Your task to perform on an android device: open app "Google News" (install if not already installed) Image 0: 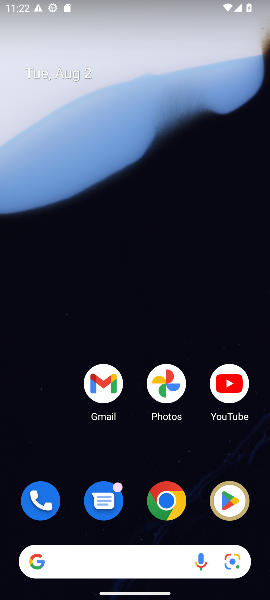
Step 0: drag from (97, 453) to (87, 146)
Your task to perform on an android device: open app "Google News" (install if not already installed) Image 1: 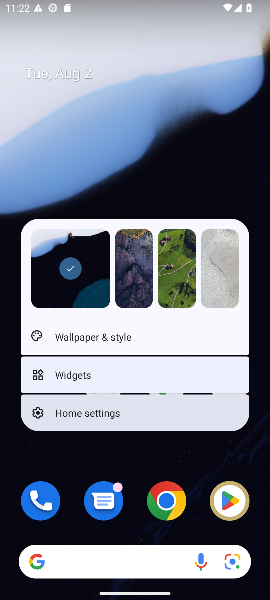
Step 1: click (200, 182)
Your task to perform on an android device: open app "Google News" (install if not already installed) Image 2: 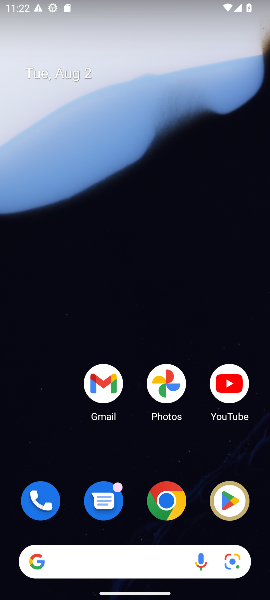
Step 2: drag from (193, 337) to (162, 83)
Your task to perform on an android device: open app "Google News" (install if not already installed) Image 3: 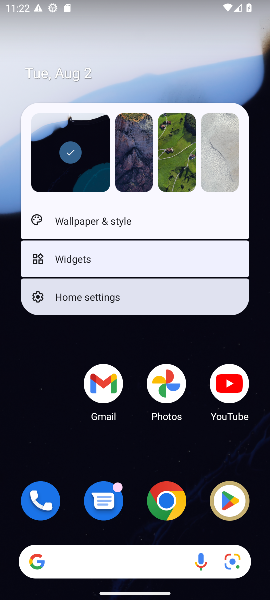
Step 3: click (151, 84)
Your task to perform on an android device: open app "Google News" (install if not already installed) Image 4: 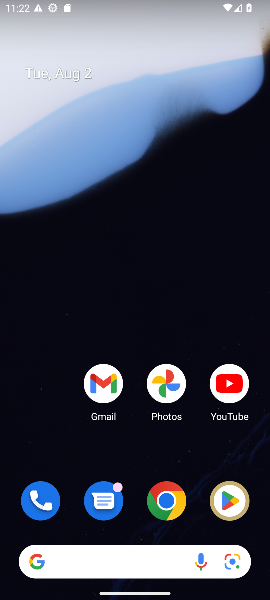
Step 4: drag from (199, 470) to (155, 83)
Your task to perform on an android device: open app "Google News" (install if not already installed) Image 5: 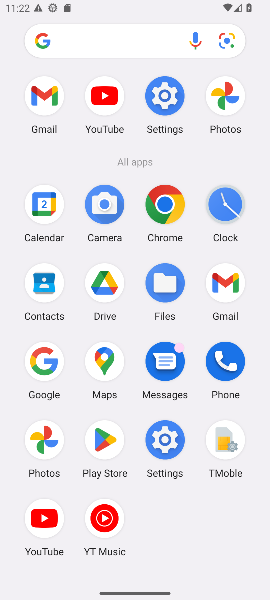
Step 5: click (103, 444)
Your task to perform on an android device: open app "Google News" (install if not already installed) Image 6: 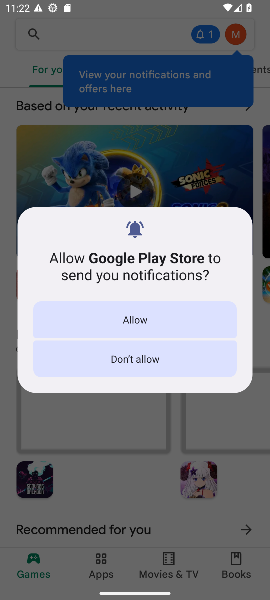
Step 6: click (180, 315)
Your task to perform on an android device: open app "Google News" (install if not already installed) Image 7: 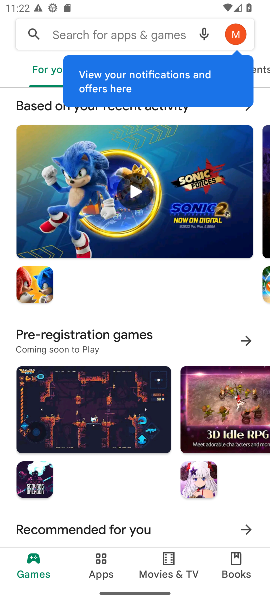
Step 7: click (157, 34)
Your task to perform on an android device: open app "Google News" (install if not already installed) Image 8: 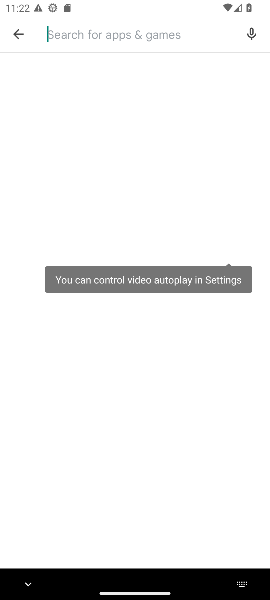
Step 8: click (145, 27)
Your task to perform on an android device: open app "Google News" (install if not already installed) Image 9: 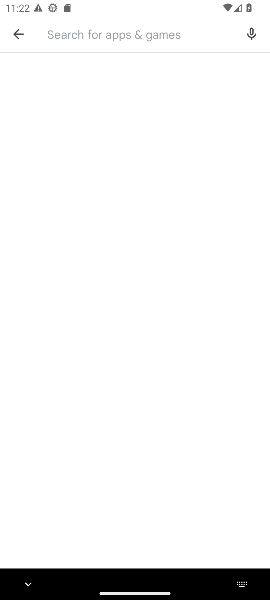
Step 9: type "google news"
Your task to perform on an android device: open app "Google News" (install if not already installed) Image 10: 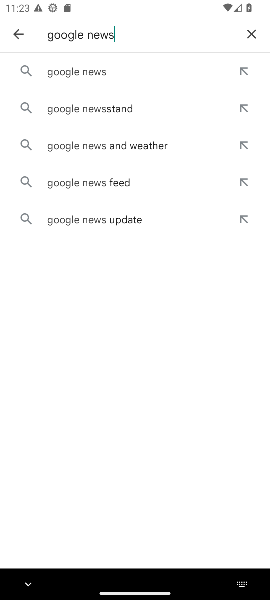
Step 10: click (114, 68)
Your task to perform on an android device: open app "Google News" (install if not already installed) Image 11: 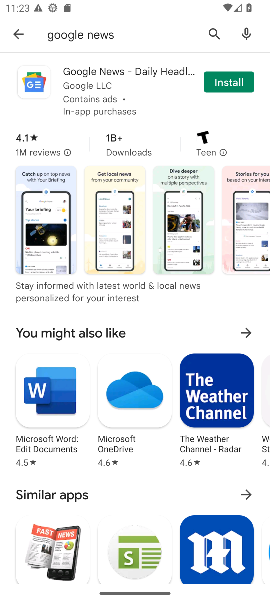
Step 11: click (234, 81)
Your task to perform on an android device: open app "Google News" (install if not already installed) Image 12: 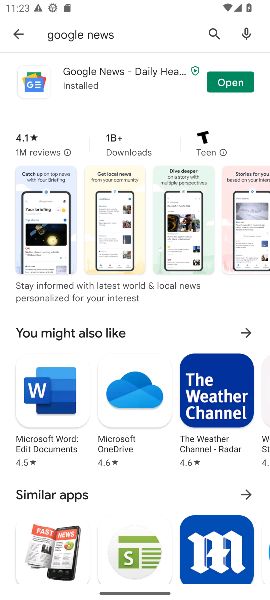
Step 12: click (239, 86)
Your task to perform on an android device: open app "Google News" (install if not already installed) Image 13: 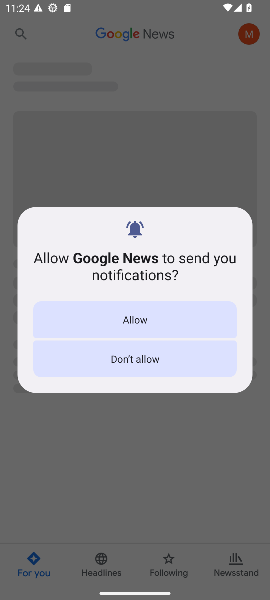
Step 13: click (174, 325)
Your task to perform on an android device: open app "Google News" (install if not already installed) Image 14: 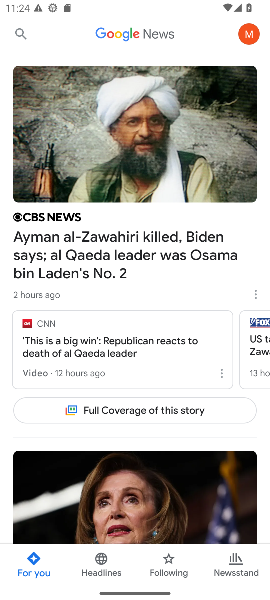
Step 14: task complete